Your task to perform on an android device: turn vacation reply on in the gmail app Image 0: 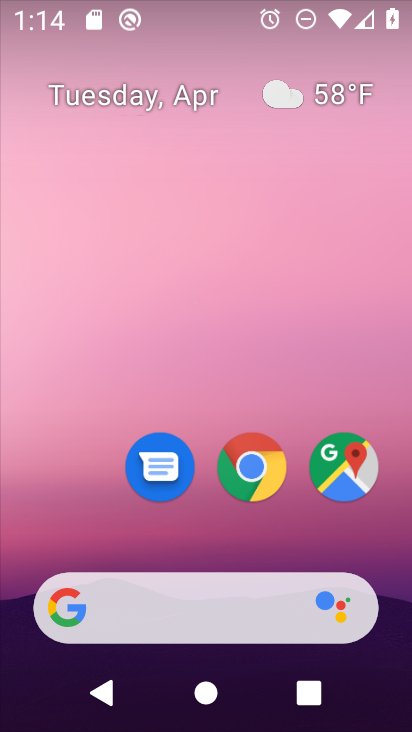
Step 0: drag from (208, 528) to (206, 16)
Your task to perform on an android device: turn vacation reply on in the gmail app Image 1: 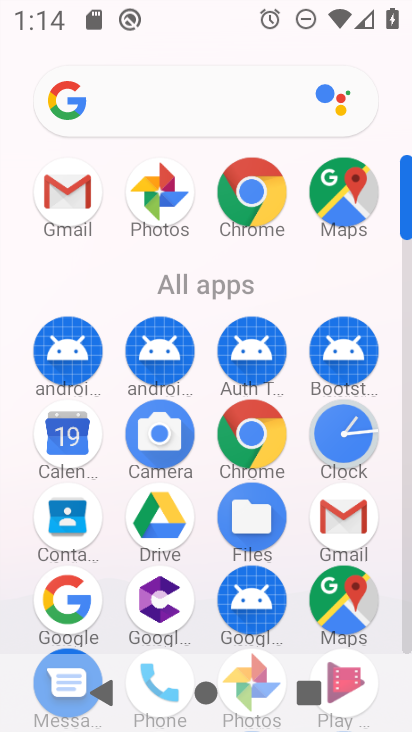
Step 1: click (331, 509)
Your task to perform on an android device: turn vacation reply on in the gmail app Image 2: 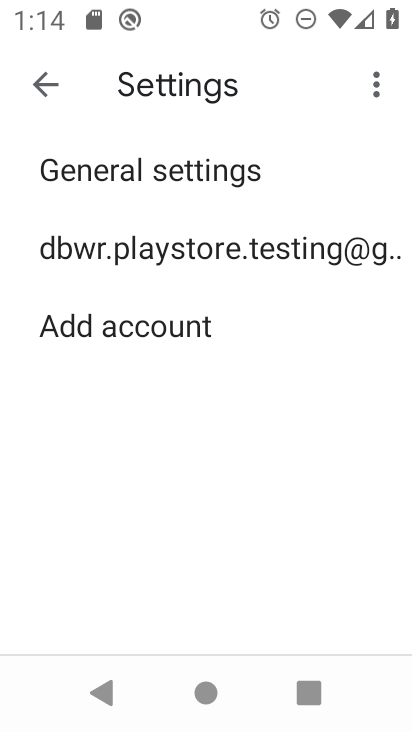
Step 2: click (220, 256)
Your task to perform on an android device: turn vacation reply on in the gmail app Image 3: 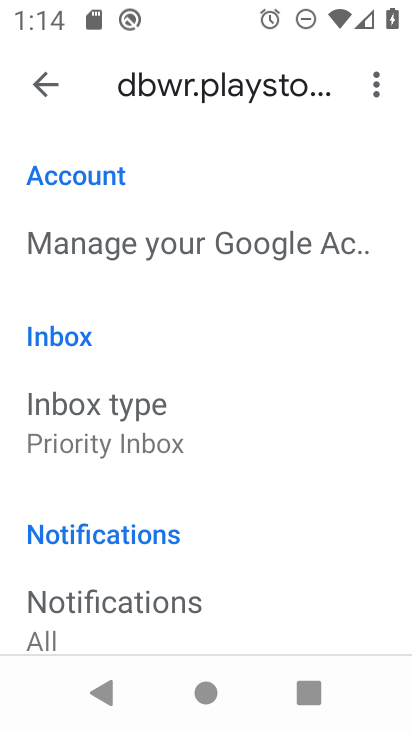
Step 3: drag from (105, 555) to (244, 133)
Your task to perform on an android device: turn vacation reply on in the gmail app Image 4: 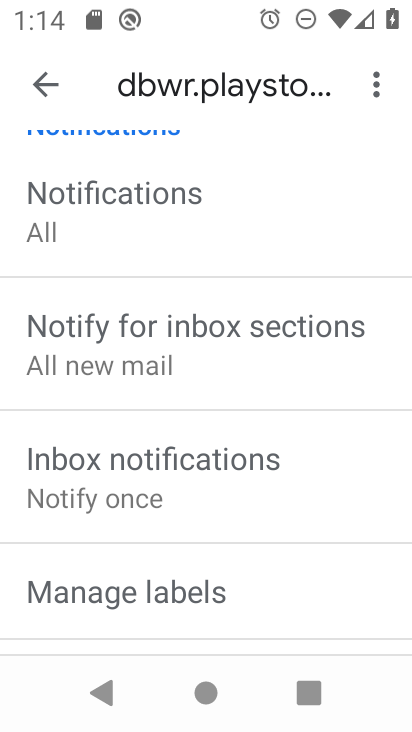
Step 4: drag from (84, 614) to (211, 214)
Your task to perform on an android device: turn vacation reply on in the gmail app Image 5: 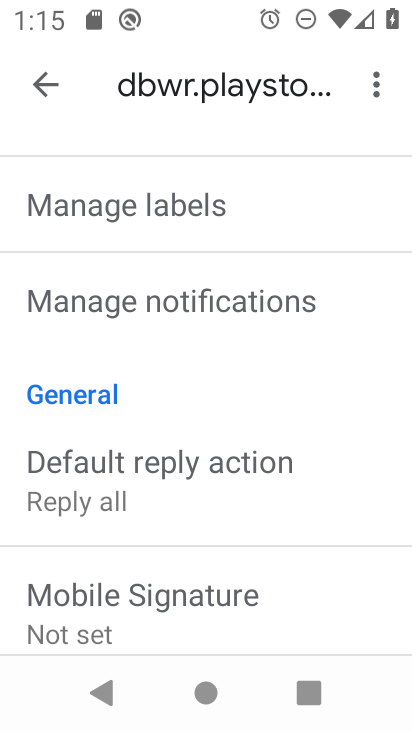
Step 5: drag from (178, 548) to (179, 80)
Your task to perform on an android device: turn vacation reply on in the gmail app Image 6: 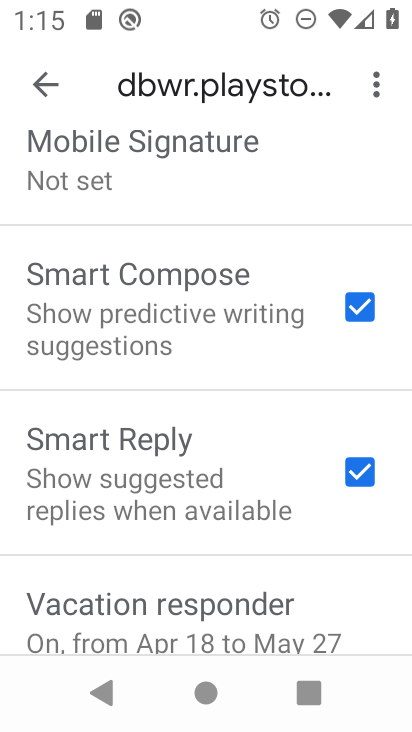
Step 6: drag from (81, 582) to (153, 81)
Your task to perform on an android device: turn vacation reply on in the gmail app Image 7: 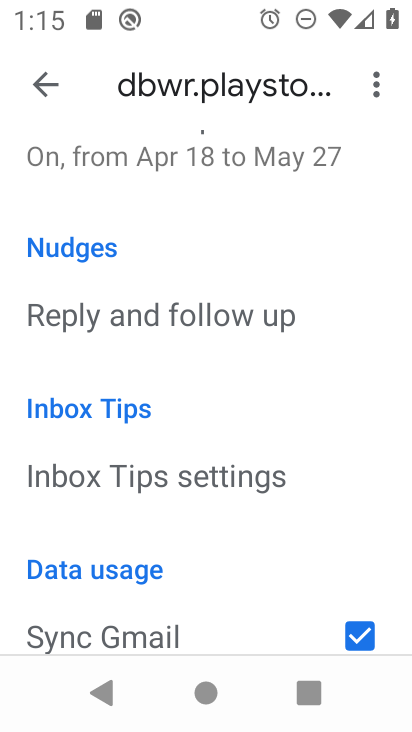
Step 7: drag from (183, 190) to (202, 369)
Your task to perform on an android device: turn vacation reply on in the gmail app Image 8: 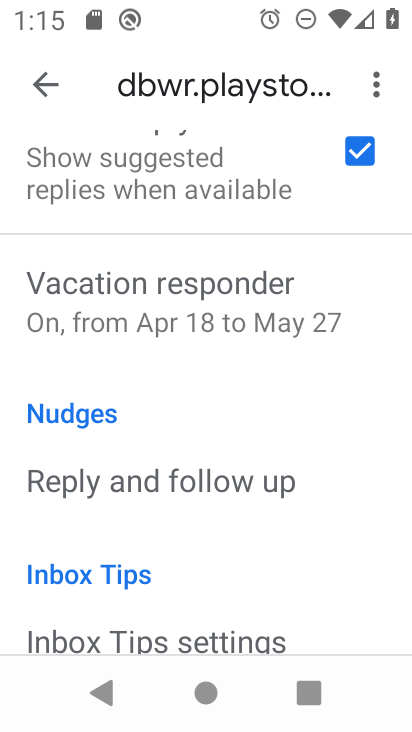
Step 8: click (237, 292)
Your task to perform on an android device: turn vacation reply on in the gmail app Image 9: 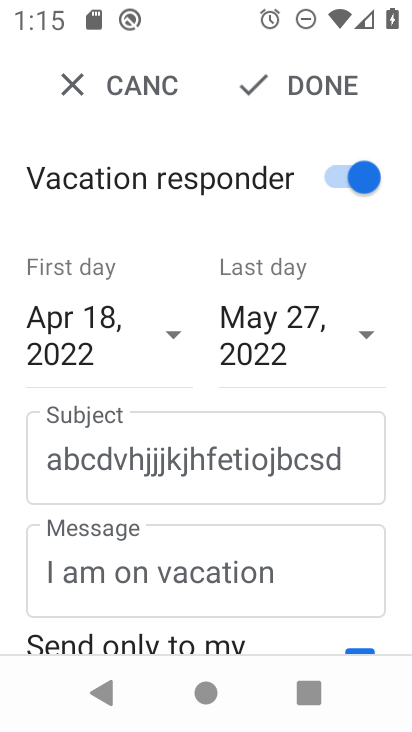
Step 9: click (342, 88)
Your task to perform on an android device: turn vacation reply on in the gmail app Image 10: 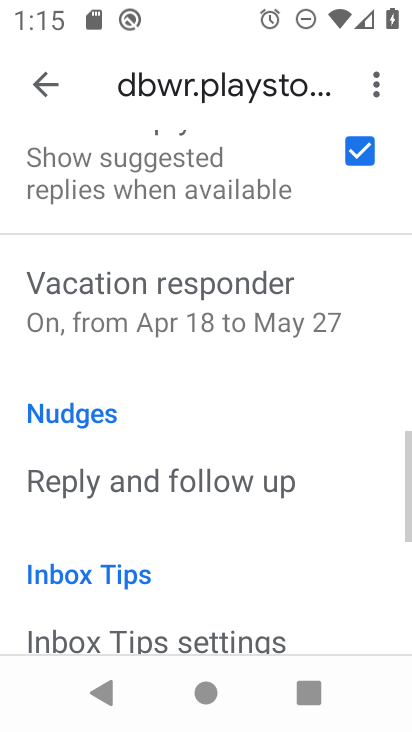
Step 10: task complete